Your task to perform on an android device: find photos in the google photos app Image 0: 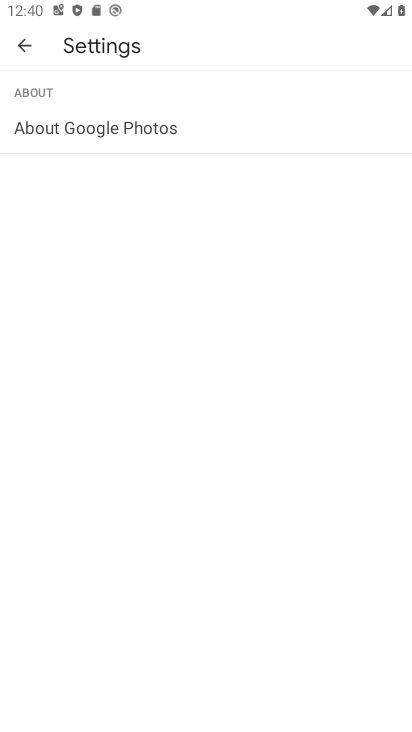
Step 0: press home button
Your task to perform on an android device: find photos in the google photos app Image 1: 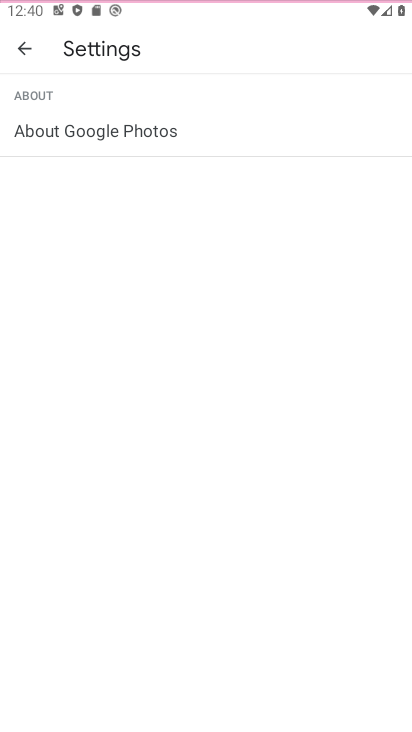
Step 1: press home button
Your task to perform on an android device: find photos in the google photos app Image 2: 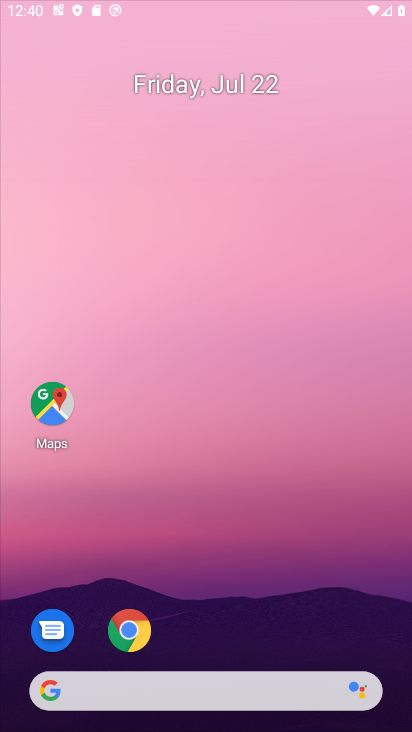
Step 2: drag from (172, 498) to (189, 359)
Your task to perform on an android device: find photos in the google photos app Image 3: 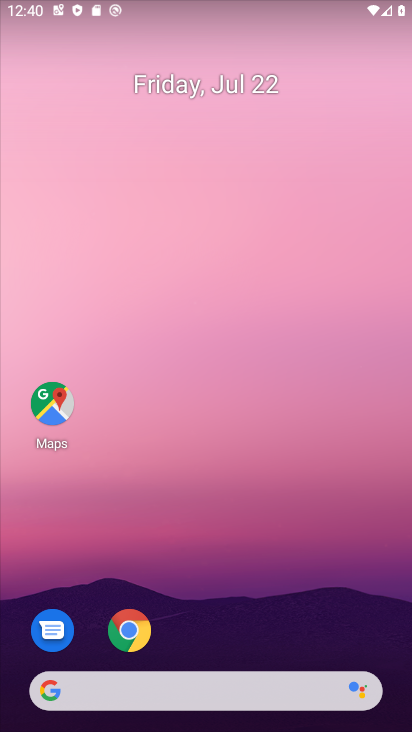
Step 3: drag from (244, 611) to (218, 7)
Your task to perform on an android device: find photos in the google photos app Image 4: 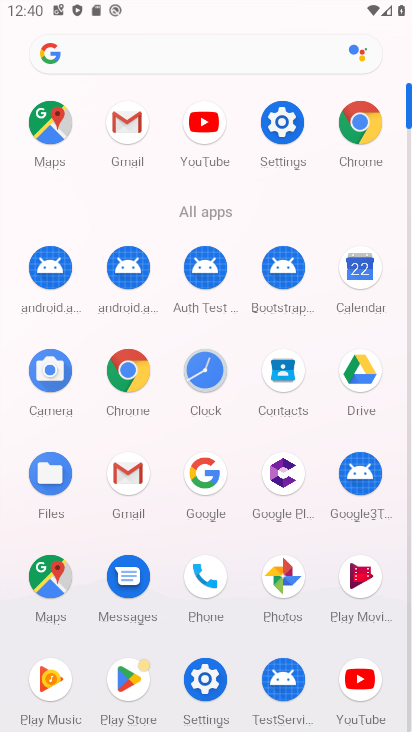
Step 4: drag from (280, 449) to (282, 381)
Your task to perform on an android device: find photos in the google photos app Image 5: 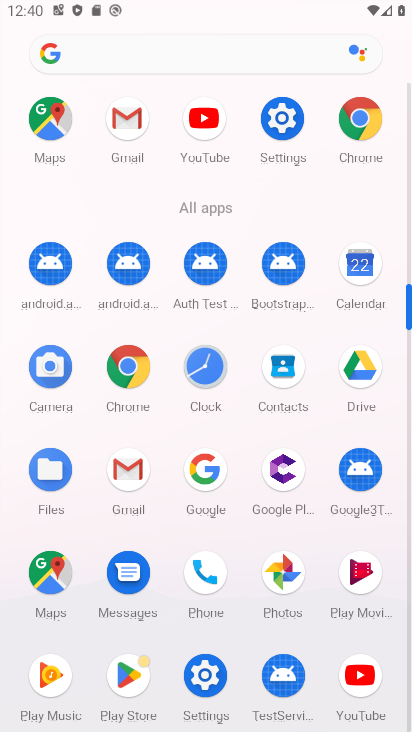
Step 5: click (295, 585)
Your task to perform on an android device: find photos in the google photos app Image 6: 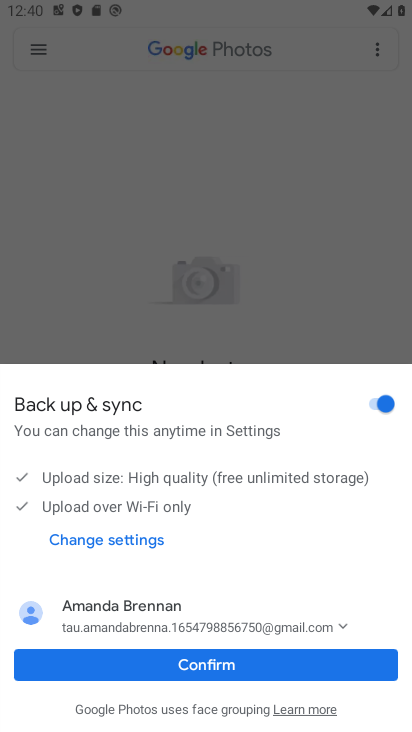
Step 6: click (167, 651)
Your task to perform on an android device: find photos in the google photos app Image 7: 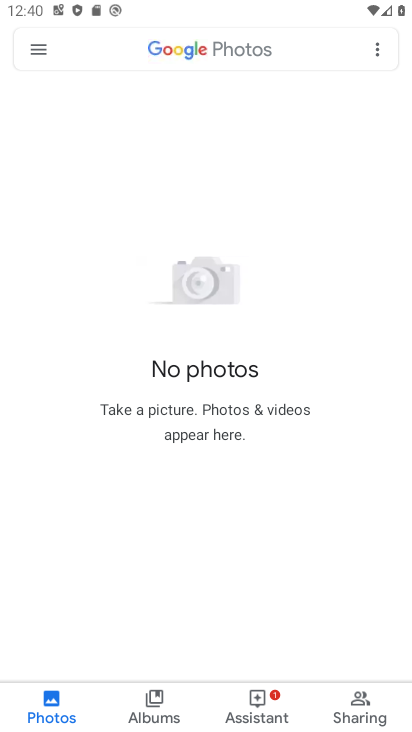
Step 7: click (167, 656)
Your task to perform on an android device: find photos in the google photos app Image 8: 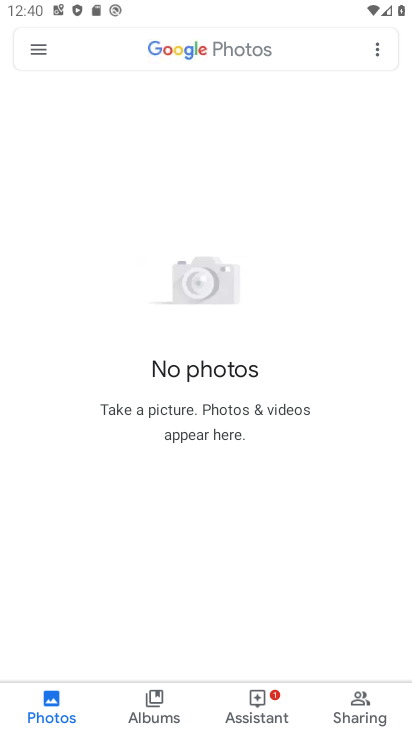
Step 8: click (167, 656)
Your task to perform on an android device: find photos in the google photos app Image 9: 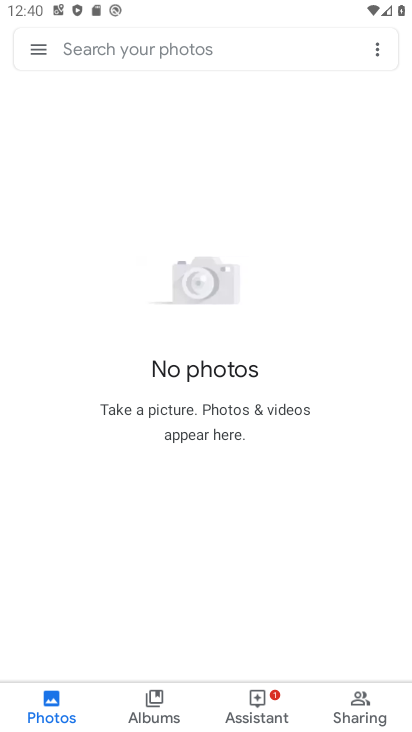
Step 9: task complete